Your task to perform on an android device: delete location history Image 0: 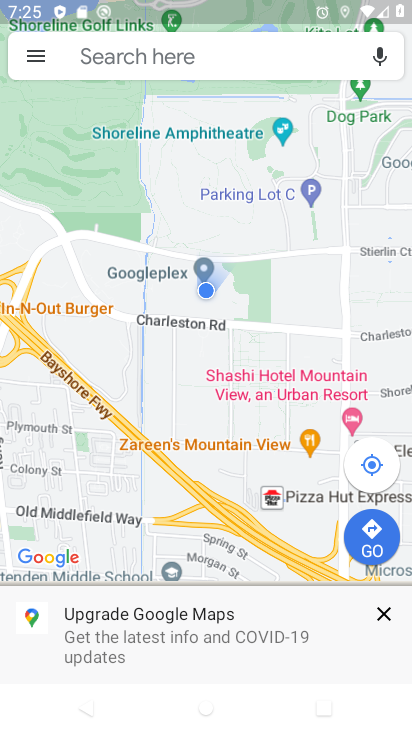
Step 0: click (39, 51)
Your task to perform on an android device: delete location history Image 1: 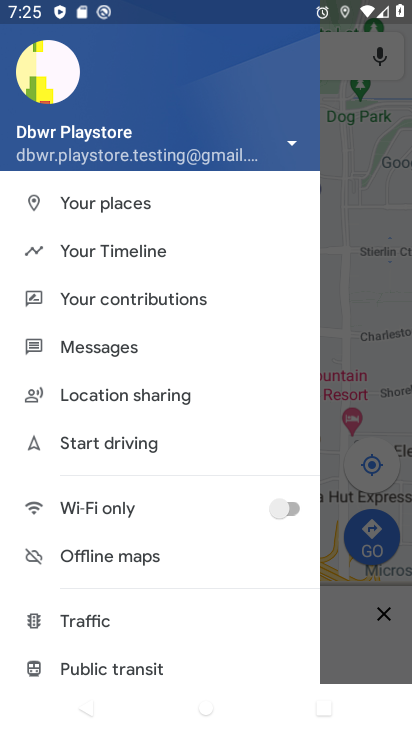
Step 1: click (134, 253)
Your task to perform on an android device: delete location history Image 2: 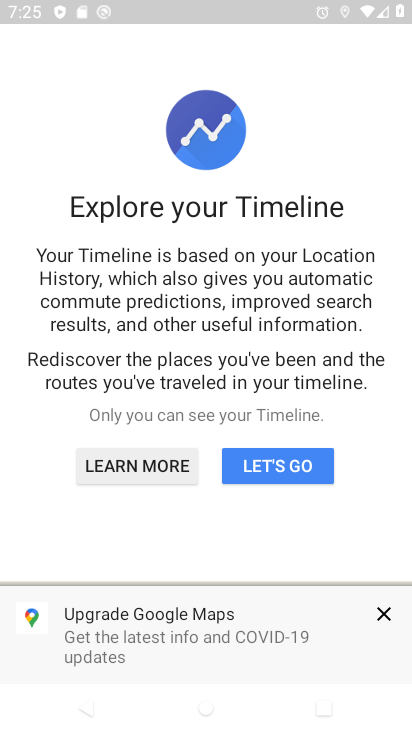
Step 2: click (382, 615)
Your task to perform on an android device: delete location history Image 3: 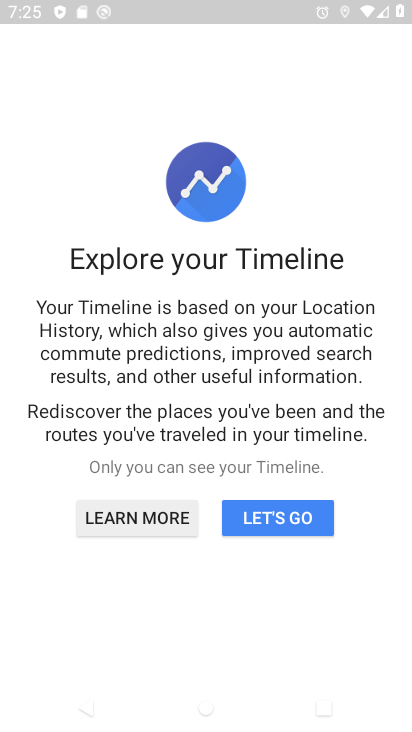
Step 3: click (258, 517)
Your task to perform on an android device: delete location history Image 4: 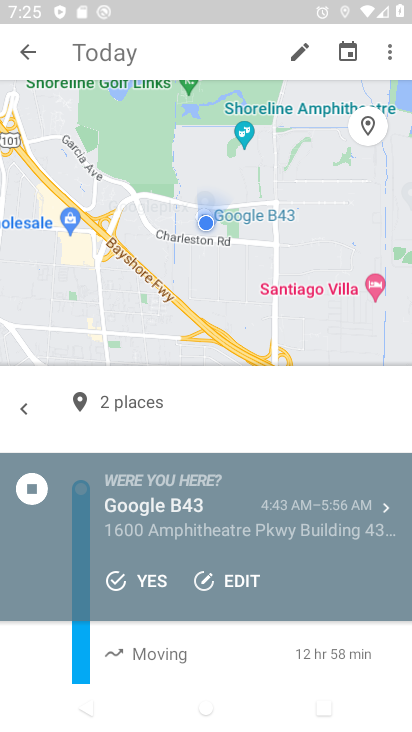
Step 4: click (393, 46)
Your task to perform on an android device: delete location history Image 5: 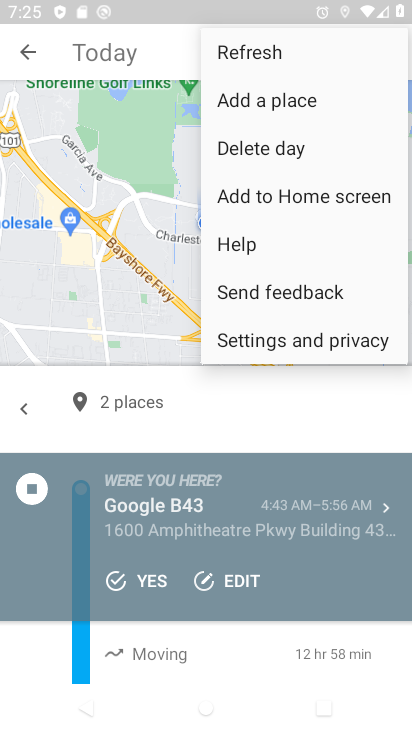
Step 5: click (298, 341)
Your task to perform on an android device: delete location history Image 6: 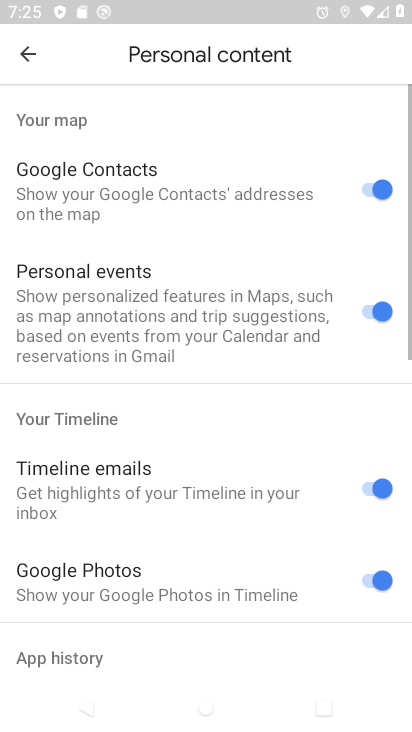
Step 6: drag from (161, 608) to (234, 206)
Your task to perform on an android device: delete location history Image 7: 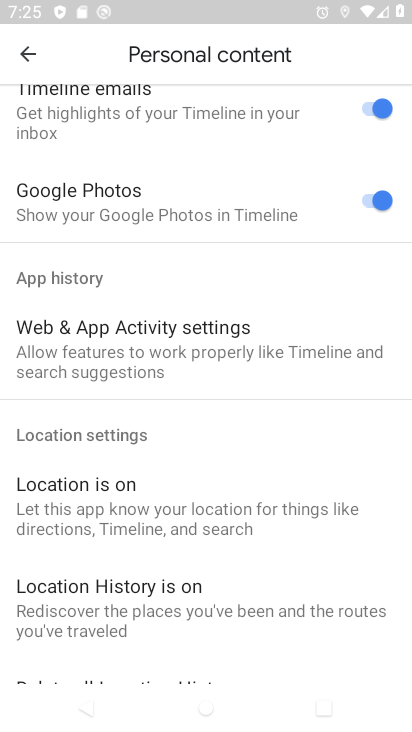
Step 7: drag from (206, 541) to (242, 355)
Your task to perform on an android device: delete location history Image 8: 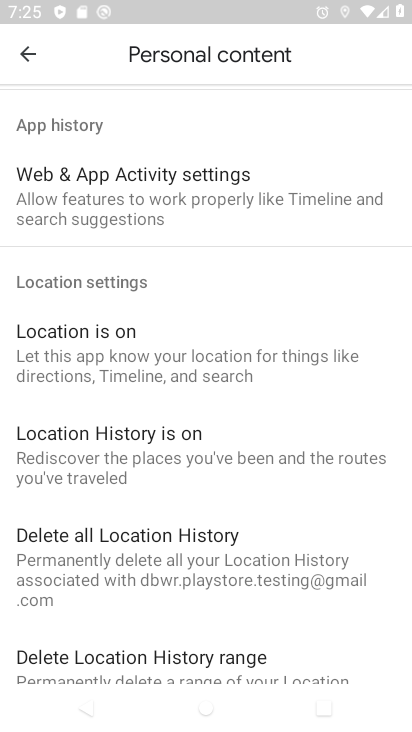
Step 8: click (188, 577)
Your task to perform on an android device: delete location history Image 9: 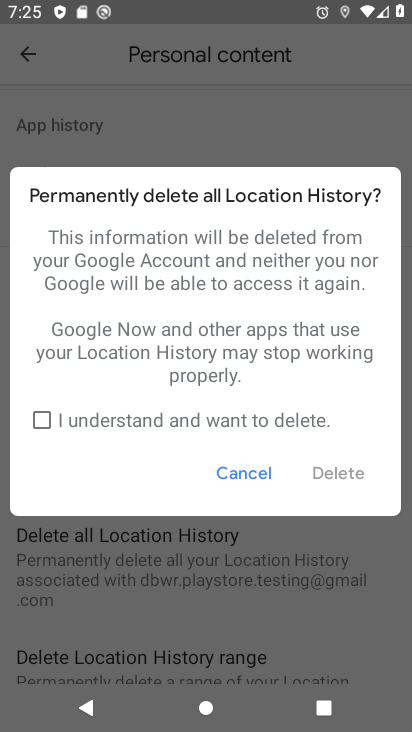
Step 9: click (59, 412)
Your task to perform on an android device: delete location history Image 10: 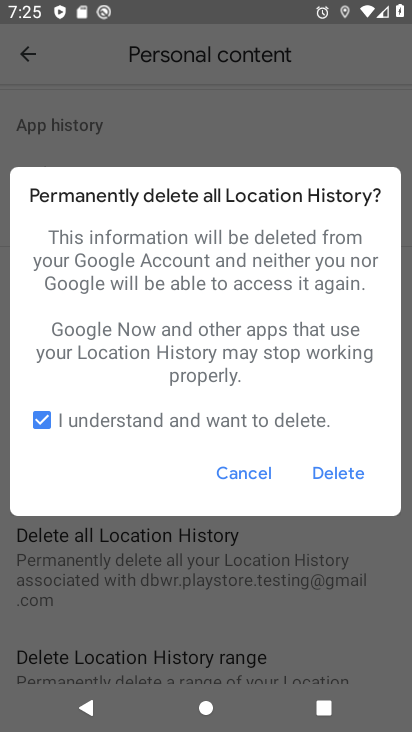
Step 10: click (342, 469)
Your task to perform on an android device: delete location history Image 11: 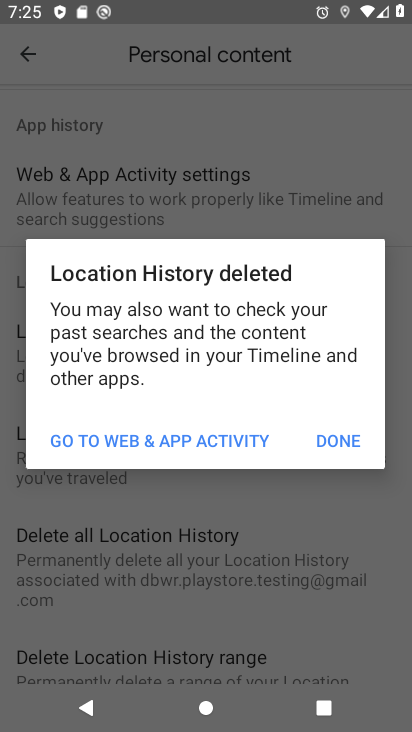
Step 11: click (319, 441)
Your task to perform on an android device: delete location history Image 12: 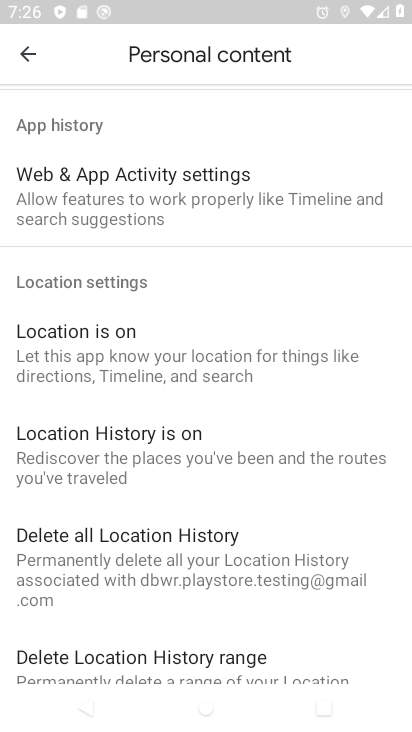
Step 12: task complete